Your task to perform on an android device: Open Wikipedia Image 0: 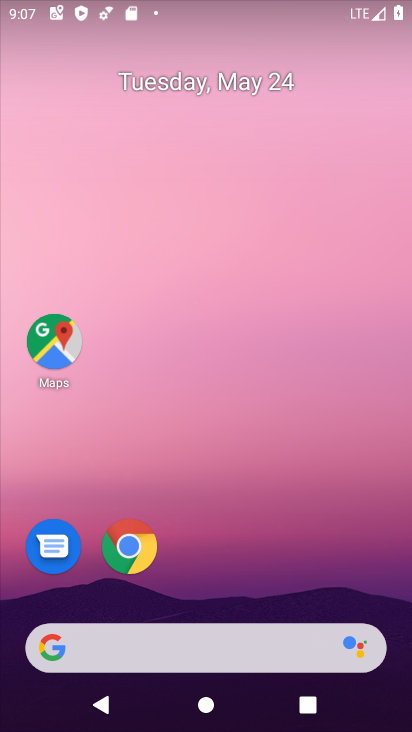
Step 0: click (133, 540)
Your task to perform on an android device: Open Wikipedia Image 1: 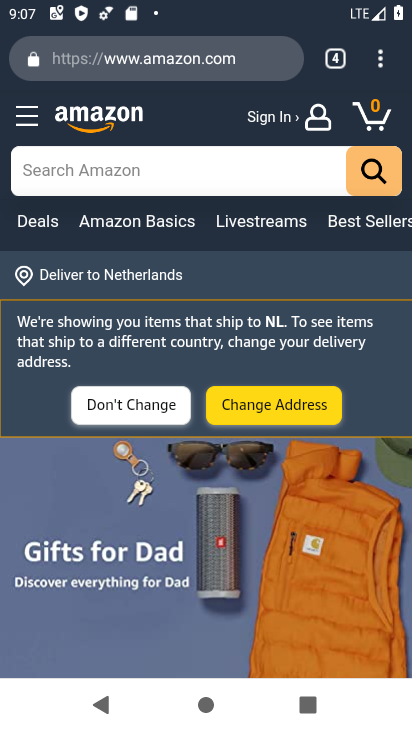
Step 1: click (381, 61)
Your task to perform on an android device: Open Wikipedia Image 2: 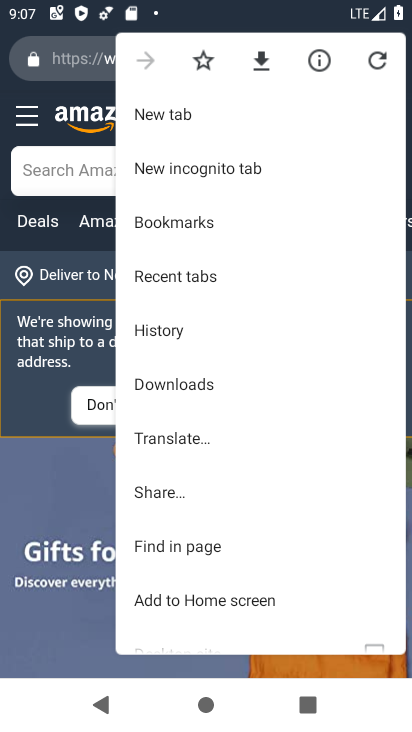
Step 2: click (284, 111)
Your task to perform on an android device: Open Wikipedia Image 3: 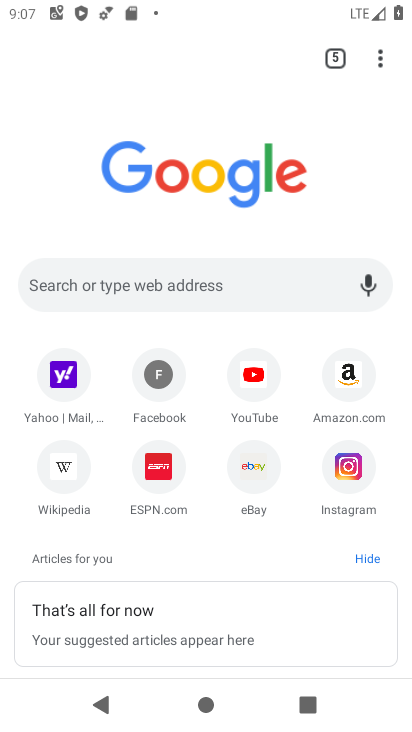
Step 3: click (62, 471)
Your task to perform on an android device: Open Wikipedia Image 4: 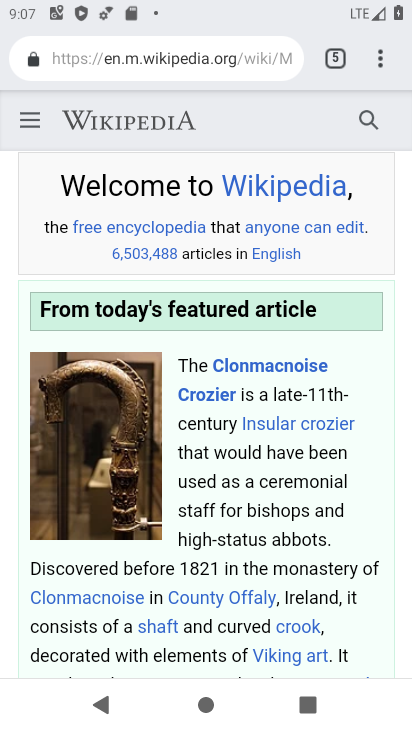
Step 4: task complete